Your task to perform on an android device: allow cookies in the chrome app Image 0: 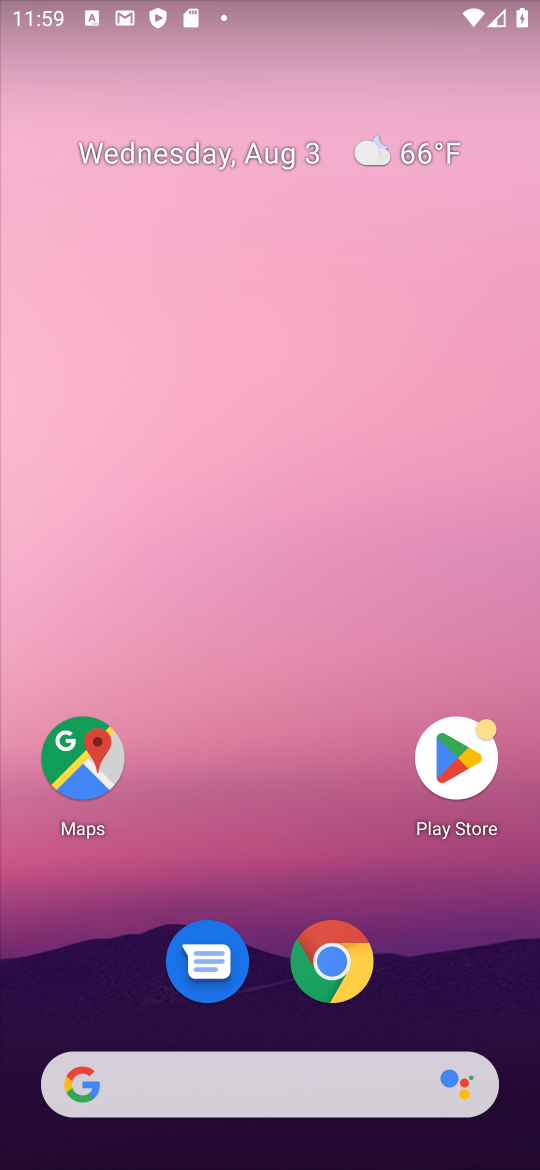
Step 0: click (336, 963)
Your task to perform on an android device: allow cookies in the chrome app Image 1: 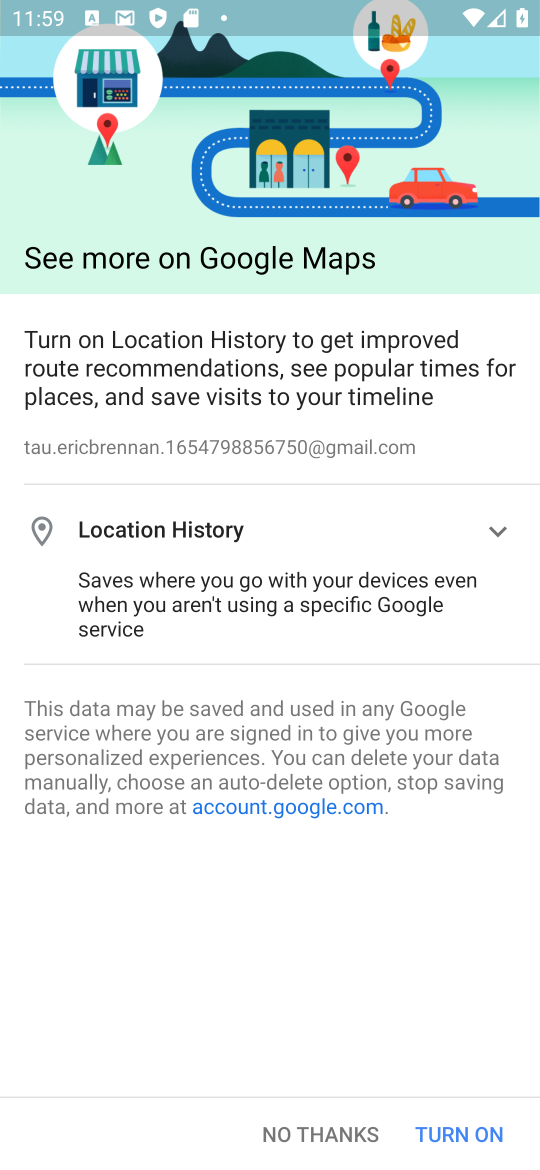
Step 1: click (452, 1123)
Your task to perform on an android device: allow cookies in the chrome app Image 2: 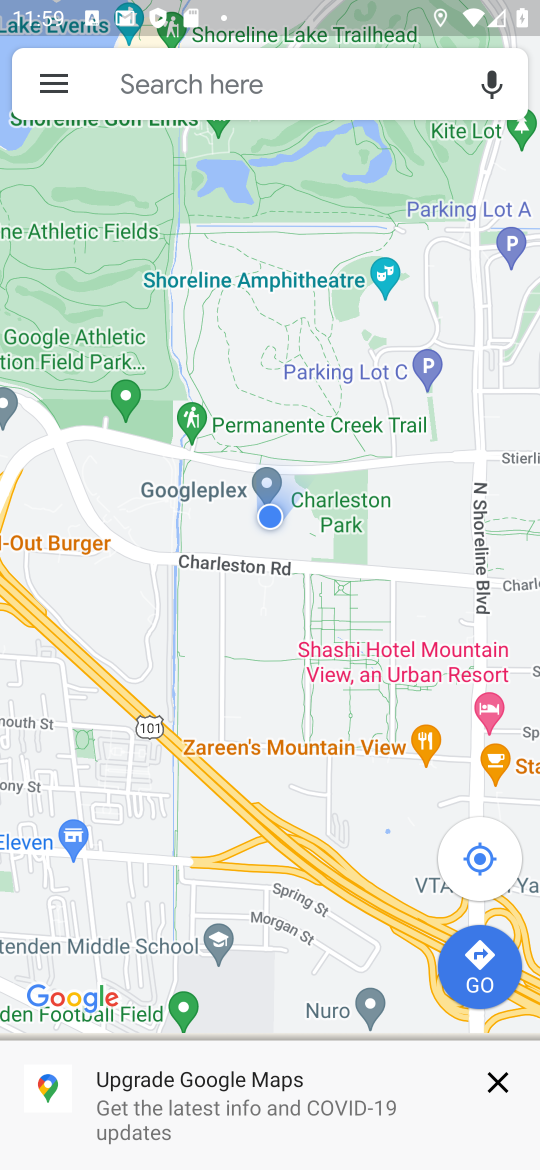
Step 2: press home button
Your task to perform on an android device: allow cookies in the chrome app Image 3: 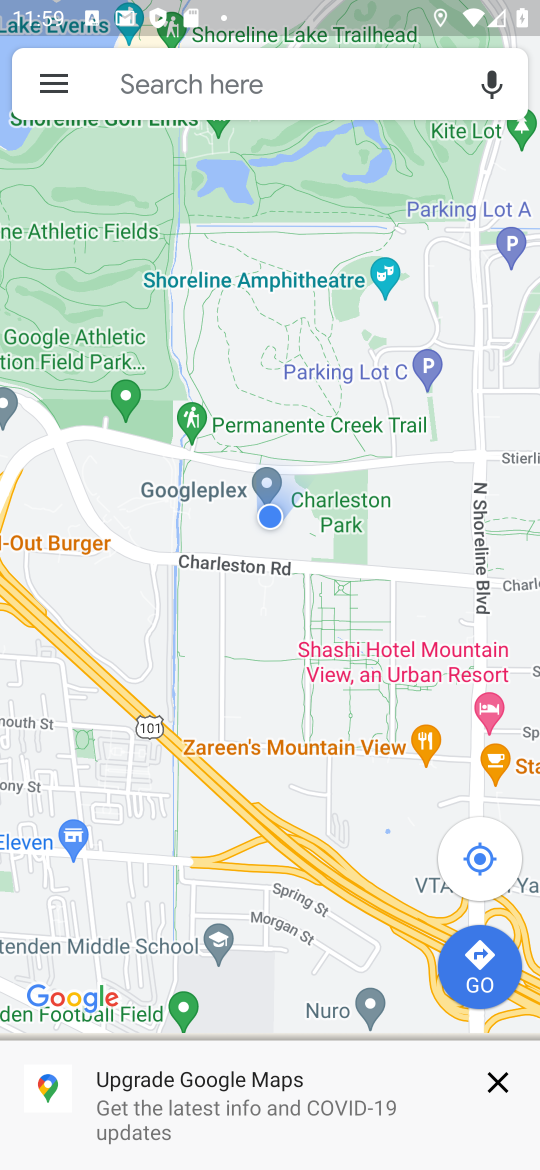
Step 3: press home button
Your task to perform on an android device: allow cookies in the chrome app Image 4: 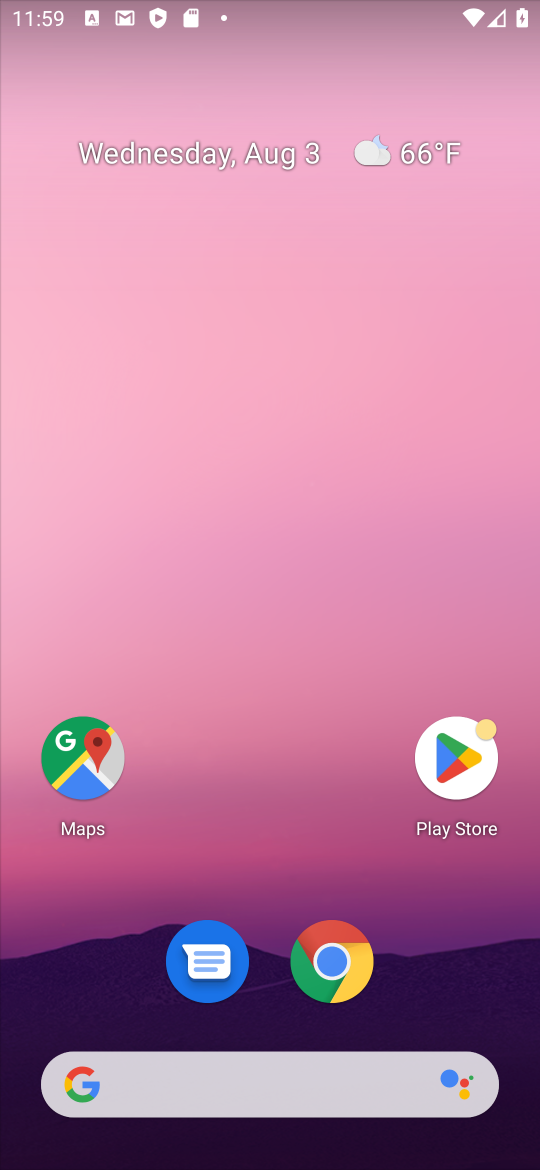
Step 4: click (336, 954)
Your task to perform on an android device: allow cookies in the chrome app Image 5: 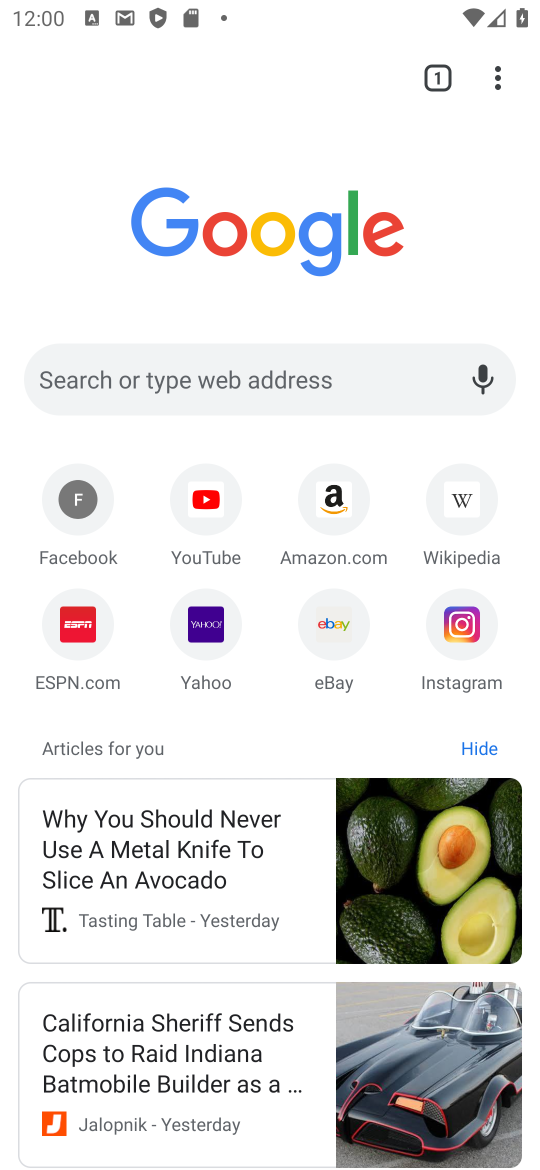
Step 5: click (490, 66)
Your task to perform on an android device: allow cookies in the chrome app Image 6: 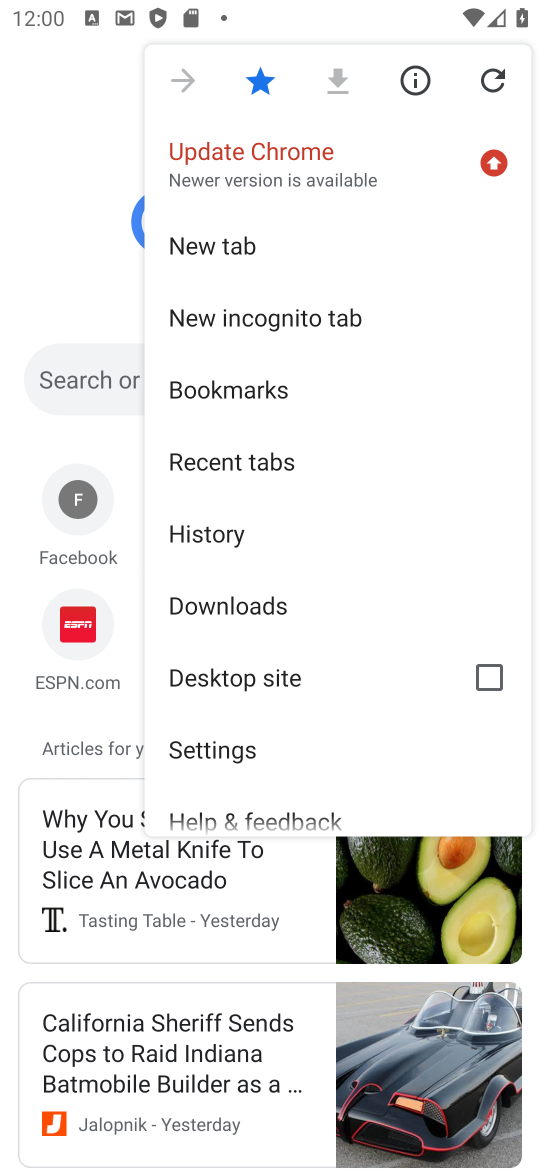
Step 6: click (257, 744)
Your task to perform on an android device: allow cookies in the chrome app Image 7: 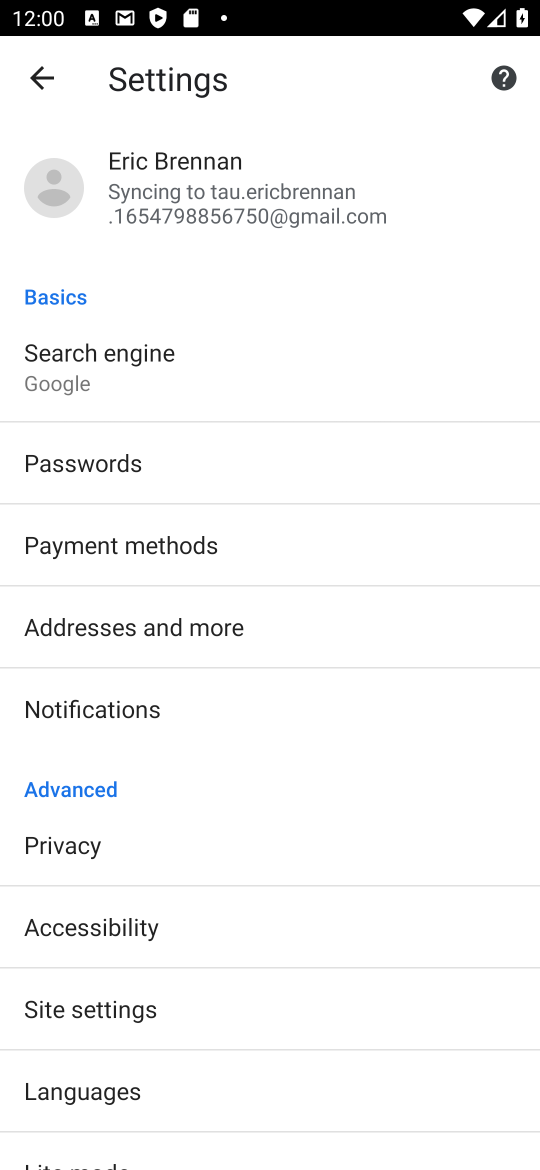
Step 7: click (140, 1015)
Your task to perform on an android device: allow cookies in the chrome app Image 8: 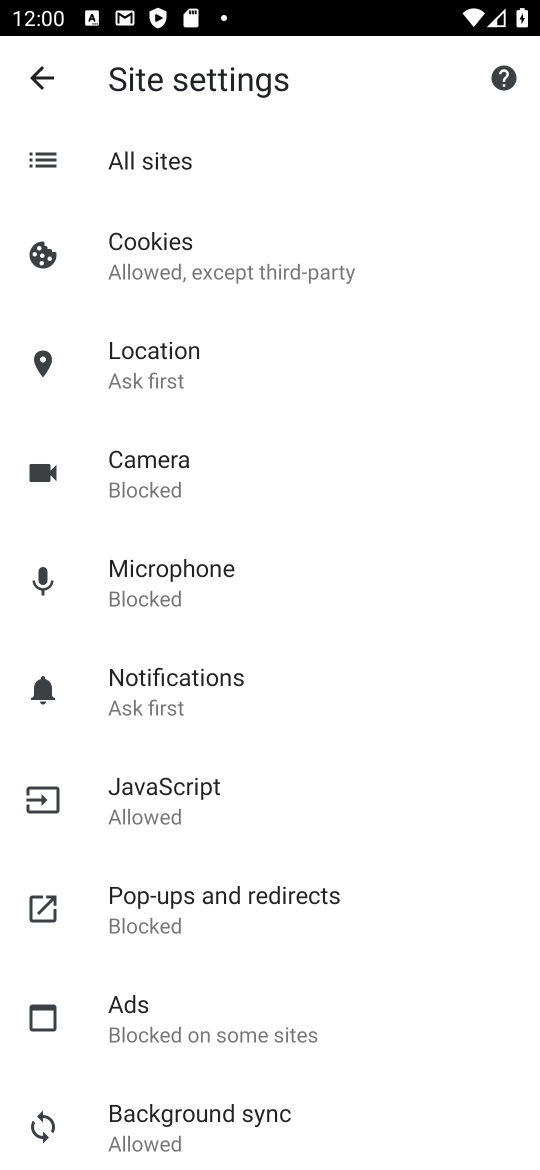
Step 8: click (314, 260)
Your task to perform on an android device: allow cookies in the chrome app Image 9: 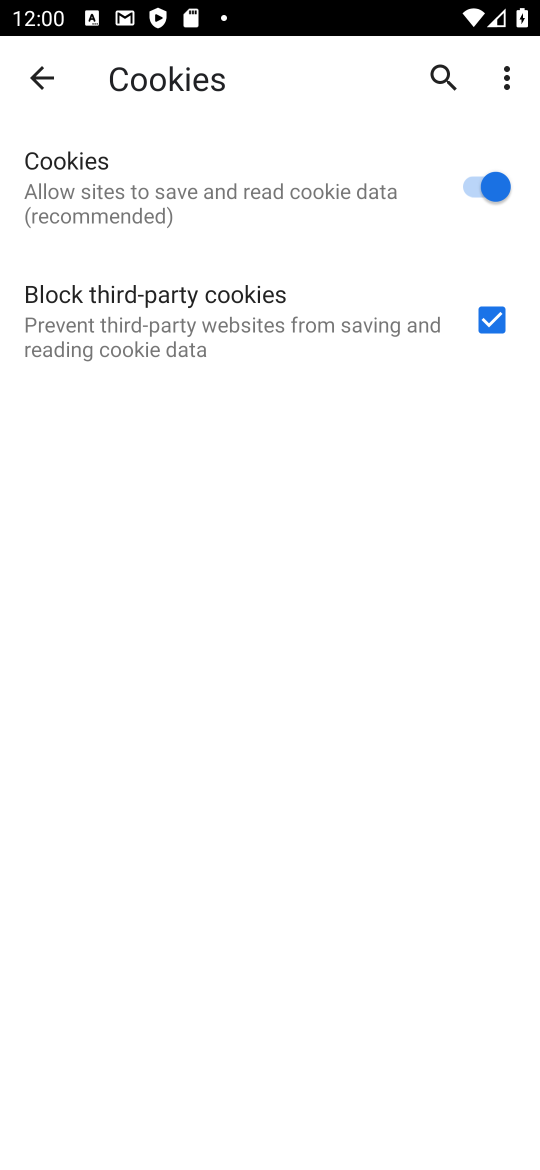
Step 9: task complete